Your task to perform on an android device: Open calendar and show me the first week of next month Image 0: 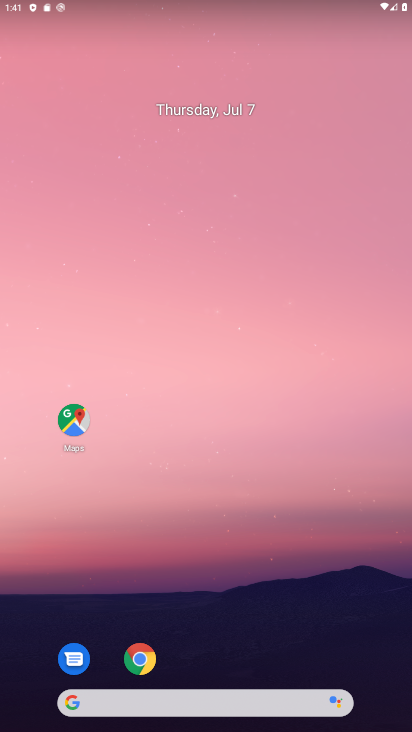
Step 0: drag from (310, 625) to (270, 9)
Your task to perform on an android device: Open calendar and show me the first week of next month Image 1: 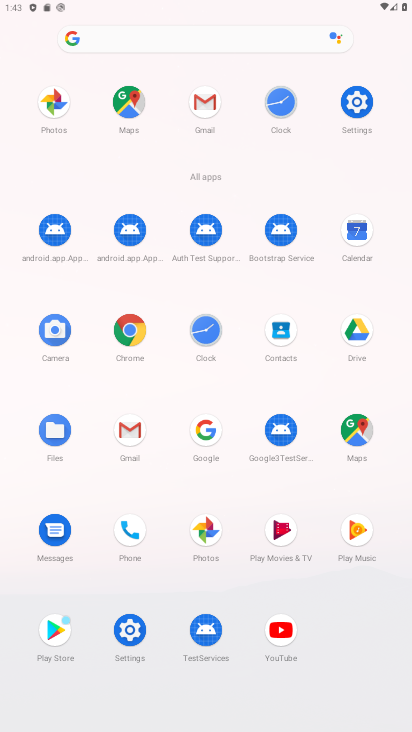
Step 1: click (362, 270)
Your task to perform on an android device: Open calendar and show me the first week of next month Image 2: 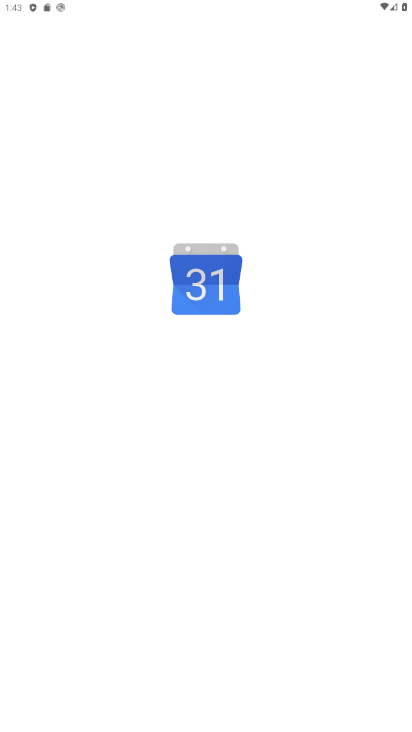
Step 2: click (370, 232)
Your task to perform on an android device: Open calendar and show me the first week of next month Image 3: 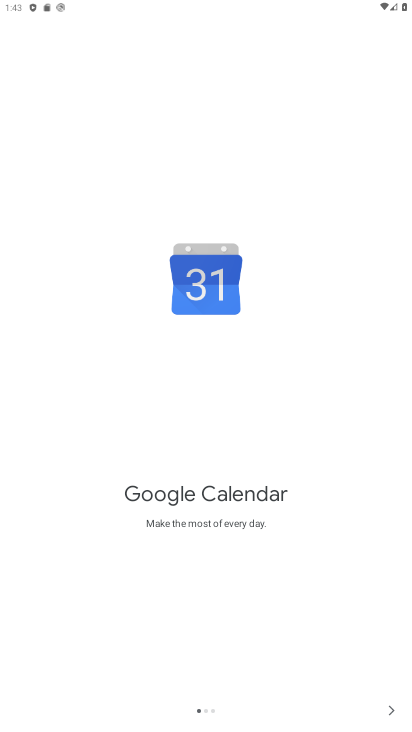
Step 3: click (394, 714)
Your task to perform on an android device: Open calendar and show me the first week of next month Image 4: 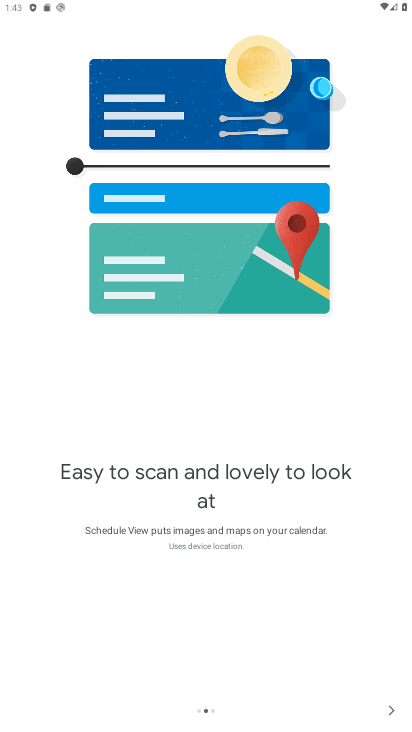
Step 4: click (394, 714)
Your task to perform on an android device: Open calendar and show me the first week of next month Image 5: 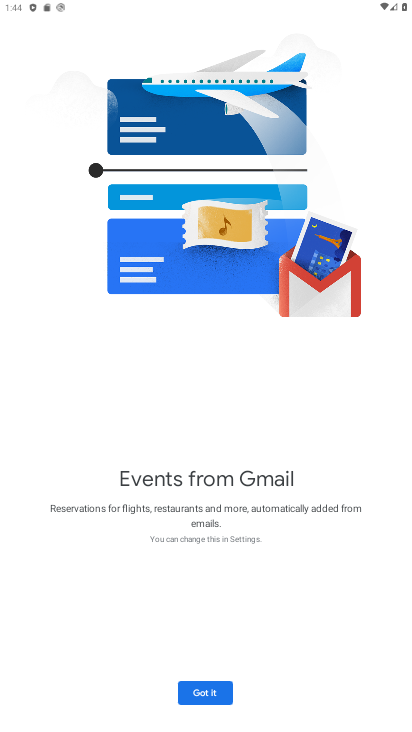
Step 5: click (217, 696)
Your task to perform on an android device: Open calendar and show me the first week of next month Image 6: 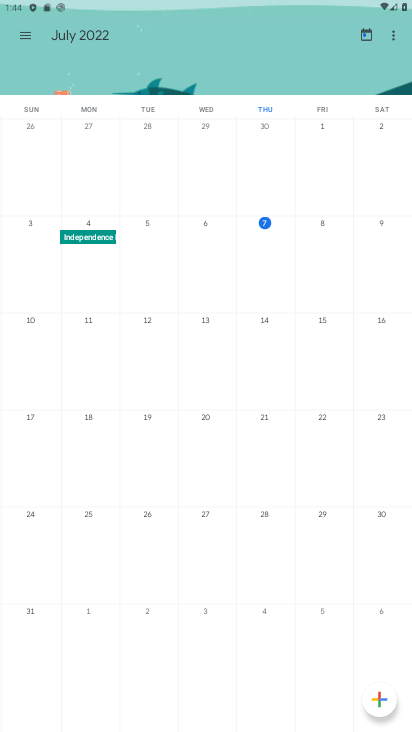
Step 6: click (25, 36)
Your task to perform on an android device: Open calendar and show me the first week of next month Image 7: 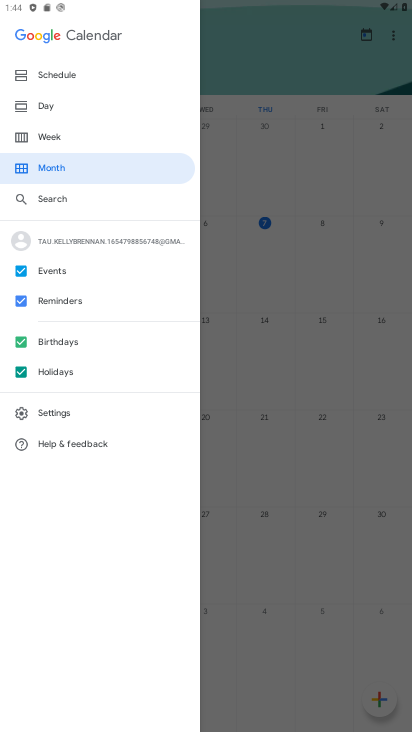
Step 7: click (76, 133)
Your task to perform on an android device: Open calendar and show me the first week of next month Image 8: 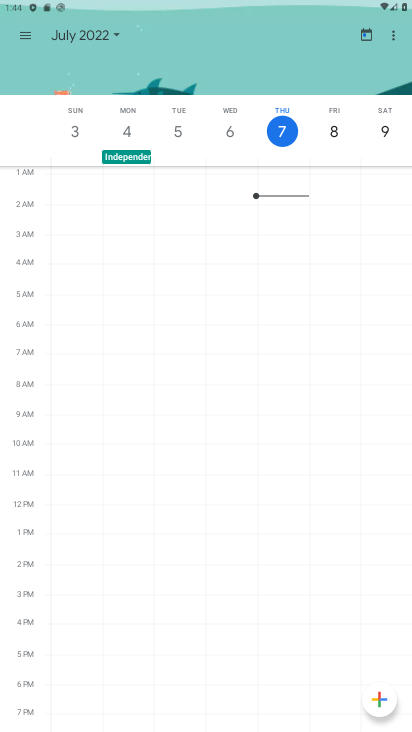
Step 8: click (98, 37)
Your task to perform on an android device: Open calendar and show me the first week of next month Image 9: 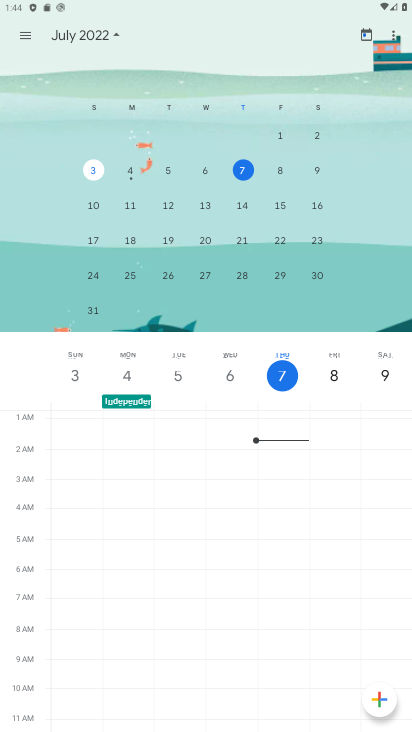
Step 9: click (134, 169)
Your task to perform on an android device: Open calendar and show me the first week of next month Image 10: 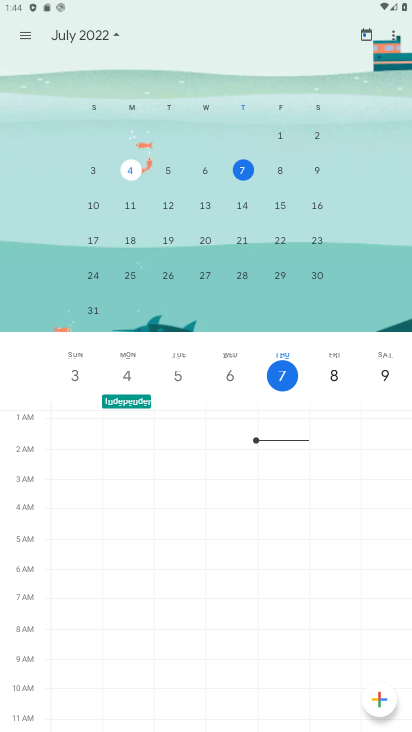
Step 10: task complete